Your task to perform on an android device: Clear all items from cart on amazon.com. Search for "razer thresher" on amazon.com, select the first entry, add it to the cart, then select checkout. Image 0: 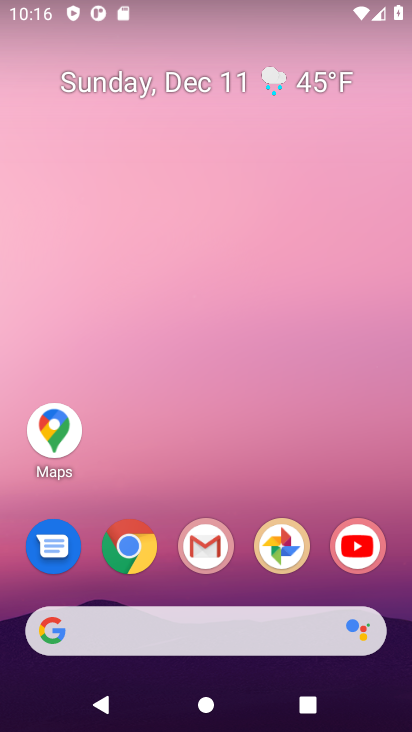
Step 0: click (130, 549)
Your task to perform on an android device: Clear all items from cart on amazon.com. Search for "razer thresher" on amazon.com, select the first entry, add it to the cart, then select checkout. Image 1: 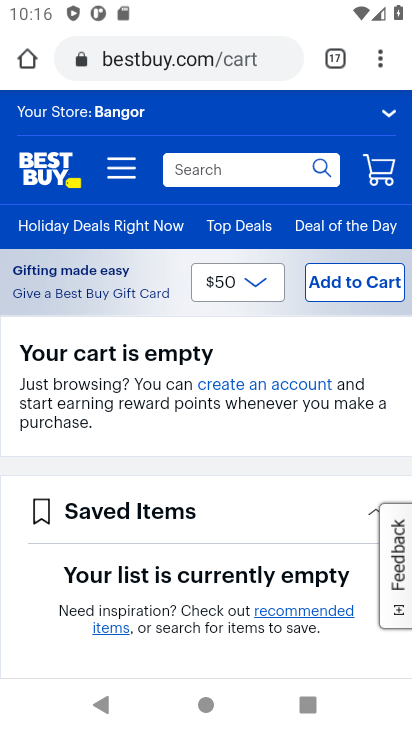
Step 1: click (167, 61)
Your task to perform on an android device: Clear all items from cart on amazon.com. Search for "razer thresher" on amazon.com, select the first entry, add it to the cart, then select checkout. Image 2: 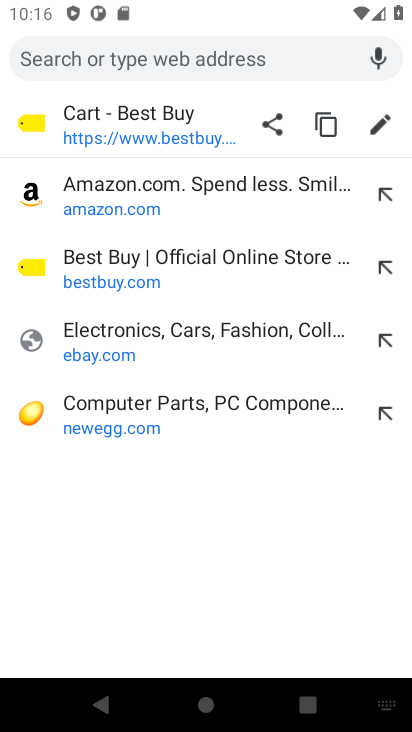
Step 2: click (80, 193)
Your task to perform on an android device: Clear all items from cart on amazon.com. Search for "razer thresher" on amazon.com, select the first entry, add it to the cart, then select checkout. Image 3: 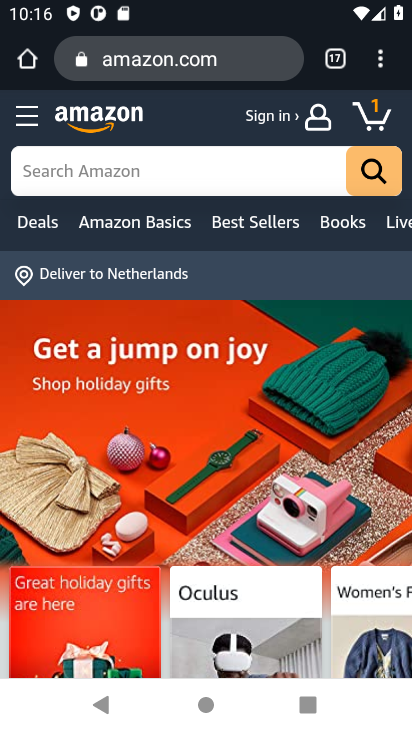
Step 3: click (368, 117)
Your task to perform on an android device: Clear all items from cart on amazon.com. Search for "razer thresher" on amazon.com, select the first entry, add it to the cart, then select checkout. Image 4: 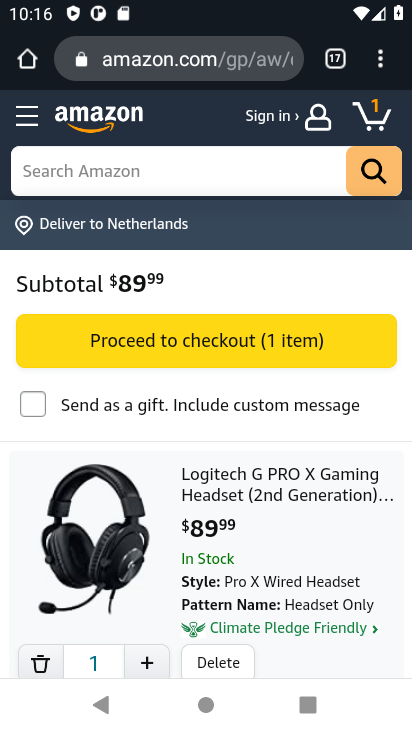
Step 4: drag from (271, 511) to (265, 321)
Your task to perform on an android device: Clear all items from cart on amazon.com. Search for "razer thresher" on amazon.com, select the first entry, add it to the cart, then select checkout. Image 5: 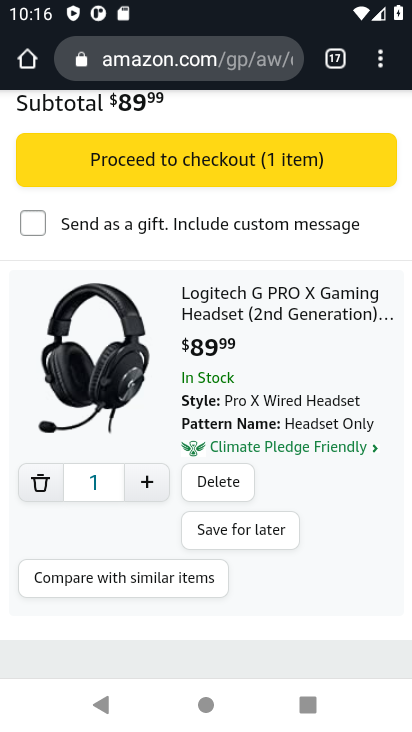
Step 5: click (227, 476)
Your task to perform on an android device: Clear all items from cart on amazon.com. Search for "razer thresher" on amazon.com, select the first entry, add it to the cart, then select checkout. Image 6: 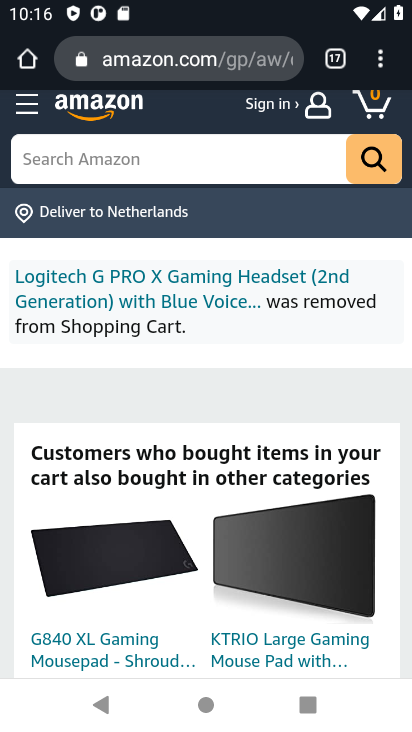
Step 6: click (113, 167)
Your task to perform on an android device: Clear all items from cart on amazon.com. Search for "razer thresher" on amazon.com, select the first entry, add it to the cart, then select checkout. Image 7: 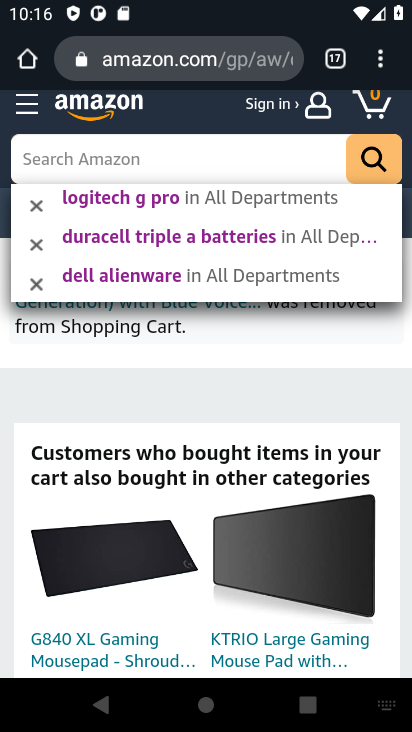
Step 7: type "razer thresher"
Your task to perform on an android device: Clear all items from cart on amazon.com. Search for "razer thresher" on amazon.com, select the first entry, add it to the cart, then select checkout. Image 8: 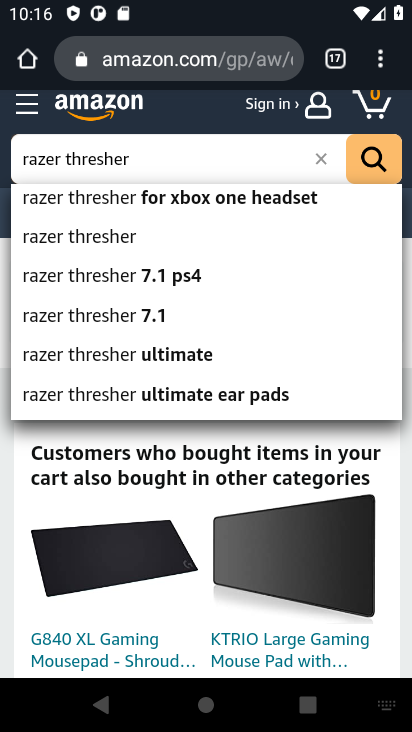
Step 8: click (92, 234)
Your task to perform on an android device: Clear all items from cart on amazon.com. Search for "razer thresher" on amazon.com, select the first entry, add it to the cart, then select checkout. Image 9: 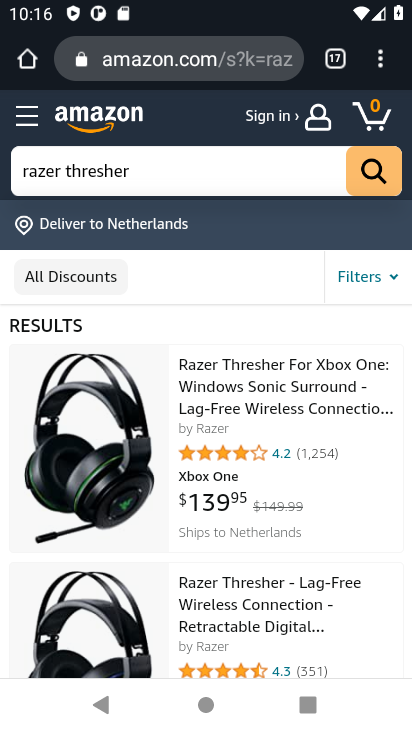
Step 9: click (234, 404)
Your task to perform on an android device: Clear all items from cart on amazon.com. Search for "razer thresher" on amazon.com, select the first entry, add it to the cart, then select checkout. Image 10: 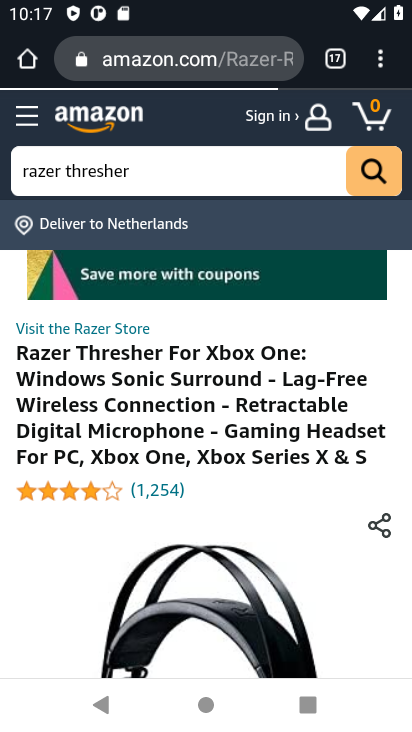
Step 10: drag from (159, 538) to (158, 364)
Your task to perform on an android device: Clear all items from cart on amazon.com. Search for "razer thresher" on amazon.com, select the first entry, add it to the cart, then select checkout. Image 11: 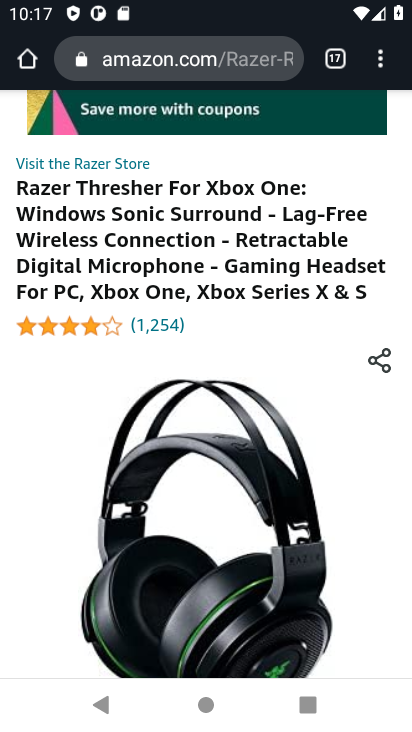
Step 11: drag from (179, 527) to (171, 224)
Your task to perform on an android device: Clear all items from cart on amazon.com. Search for "razer thresher" on amazon.com, select the first entry, add it to the cart, then select checkout. Image 12: 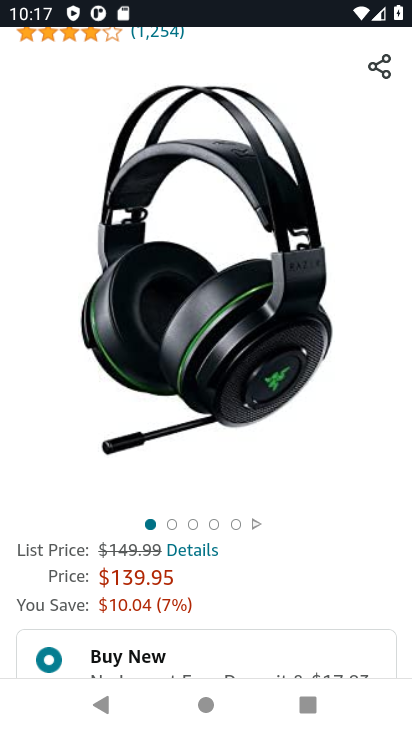
Step 12: drag from (186, 463) to (163, 154)
Your task to perform on an android device: Clear all items from cart on amazon.com. Search for "razer thresher" on amazon.com, select the first entry, add it to the cart, then select checkout. Image 13: 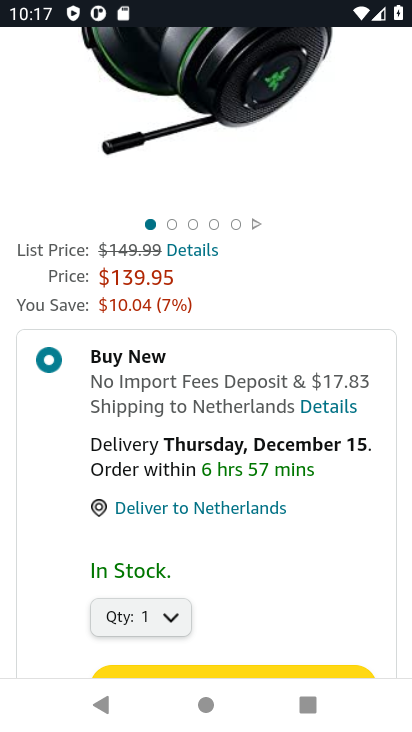
Step 13: drag from (227, 488) to (203, 185)
Your task to perform on an android device: Clear all items from cart on amazon.com. Search for "razer thresher" on amazon.com, select the first entry, add it to the cart, then select checkout. Image 14: 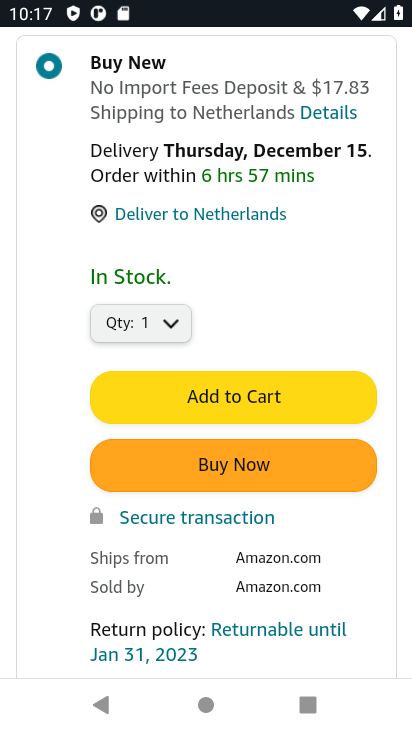
Step 14: click (210, 398)
Your task to perform on an android device: Clear all items from cart on amazon.com. Search for "razer thresher" on amazon.com, select the first entry, add it to the cart, then select checkout. Image 15: 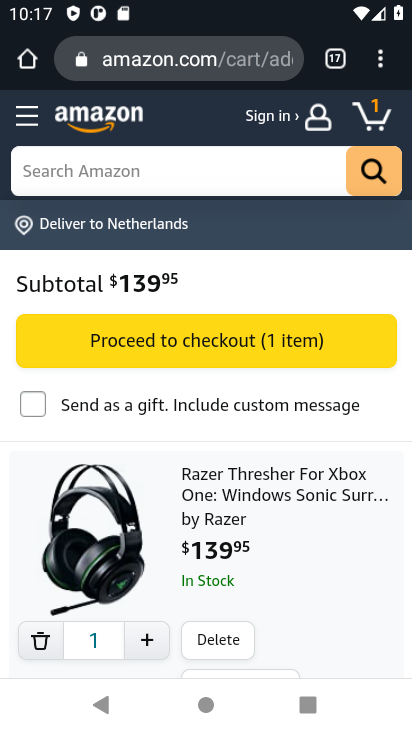
Step 15: click (188, 344)
Your task to perform on an android device: Clear all items from cart on amazon.com. Search for "razer thresher" on amazon.com, select the first entry, add it to the cart, then select checkout. Image 16: 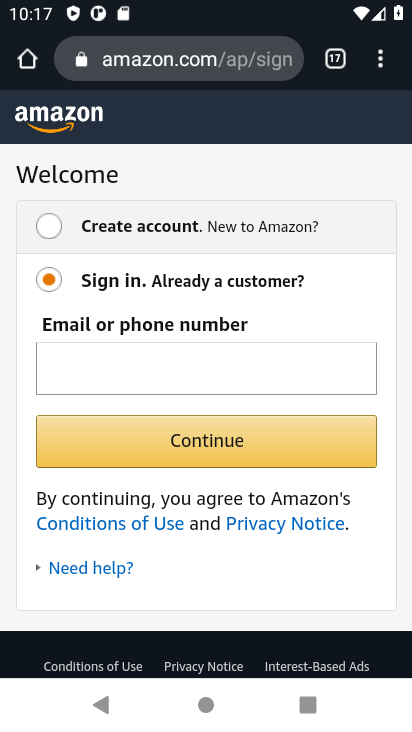
Step 16: task complete